Your task to perform on an android device: When is my next meeting? Image 0: 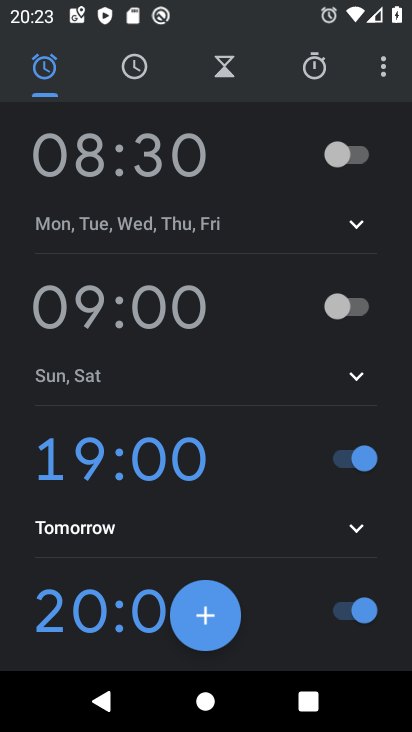
Step 0: press home button
Your task to perform on an android device: When is my next meeting? Image 1: 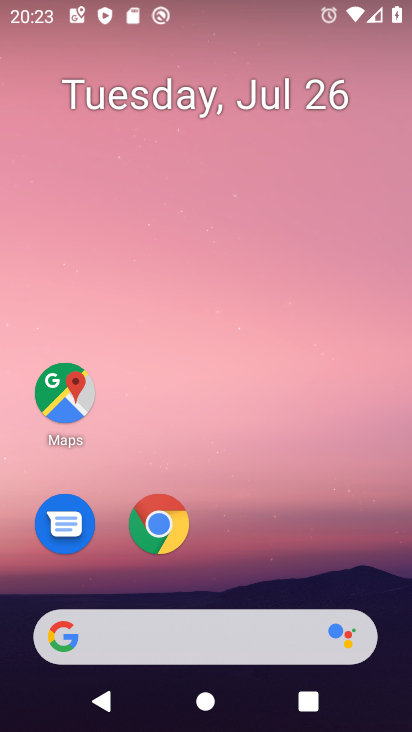
Step 1: drag from (299, 459) to (311, 67)
Your task to perform on an android device: When is my next meeting? Image 2: 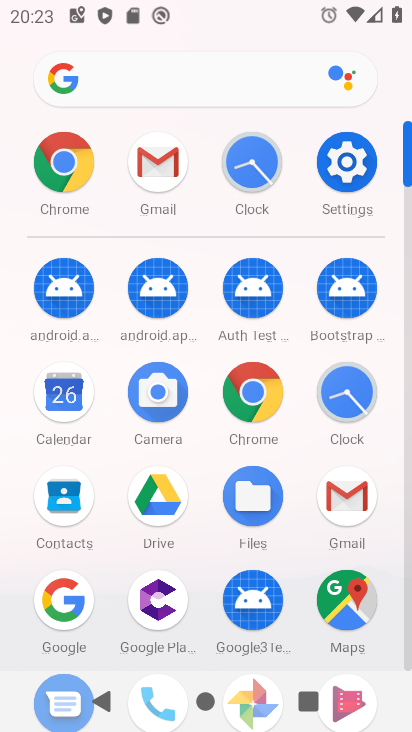
Step 2: click (75, 388)
Your task to perform on an android device: When is my next meeting? Image 3: 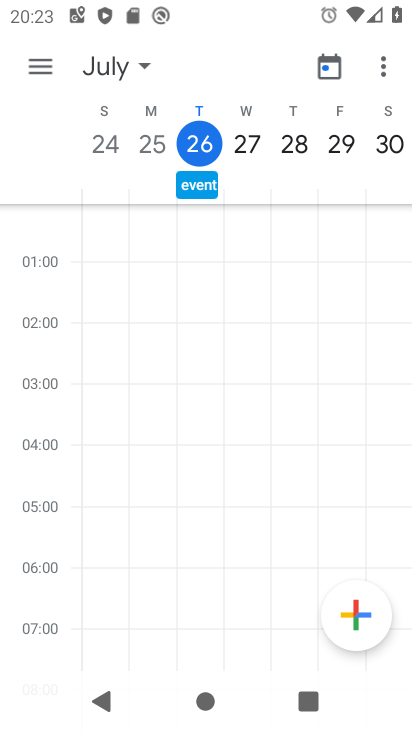
Step 3: click (205, 136)
Your task to perform on an android device: When is my next meeting? Image 4: 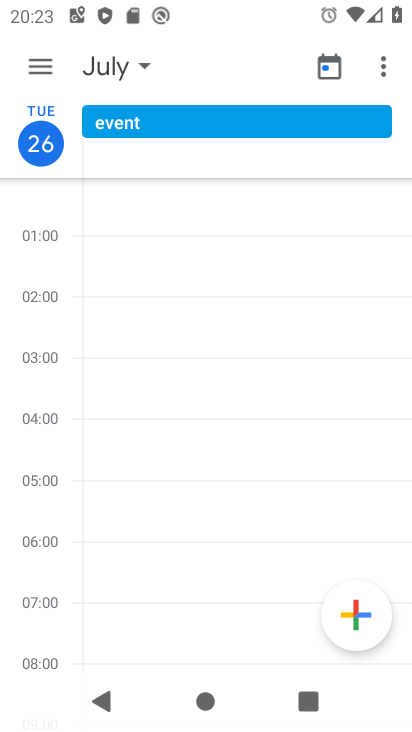
Step 4: click (47, 147)
Your task to perform on an android device: When is my next meeting? Image 5: 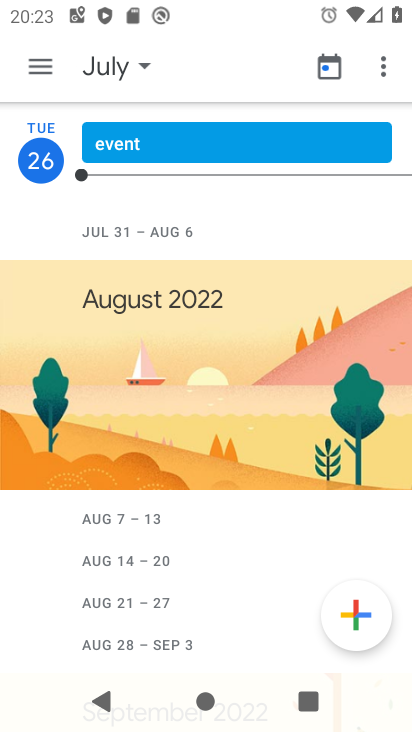
Step 5: task complete